Your task to perform on an android device: Search for pizza restaurants on Maps Image 0: 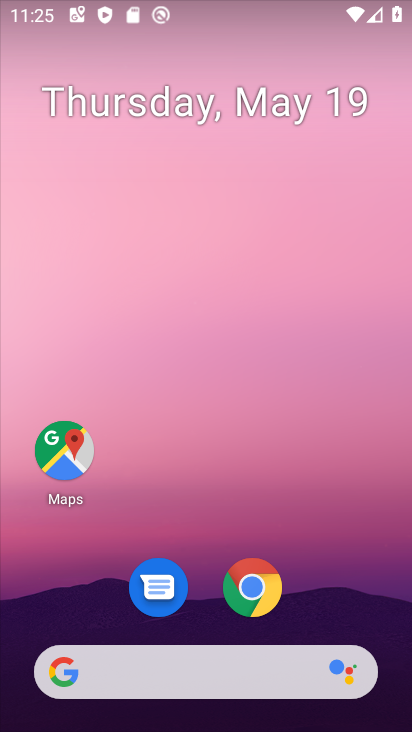
Step 0: click (63, 434)
Your task to perform on an android device: Search for pizza restaurants on Maps Image 1: 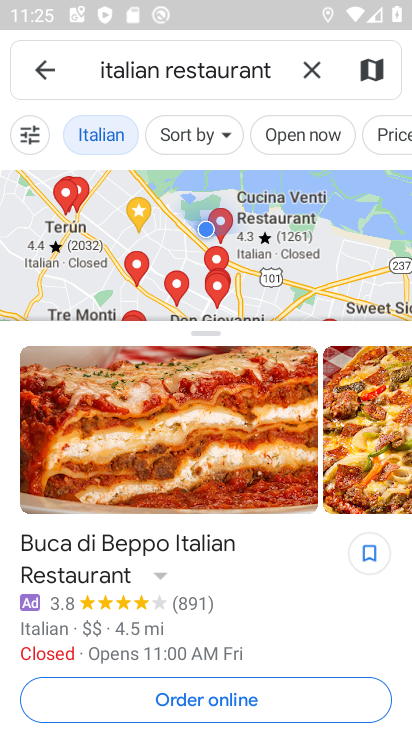
Step 1: click (307, 86)
Your task to perform on an android device: Search for pizza restaurants on Maps Image 2: 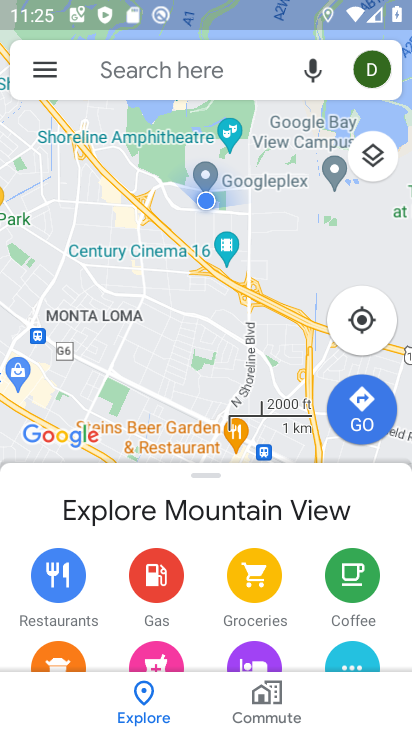
Step 2: click (128, 85)
Your task to perform on an android device: Search for pizza restaurants on Maps Image 3: 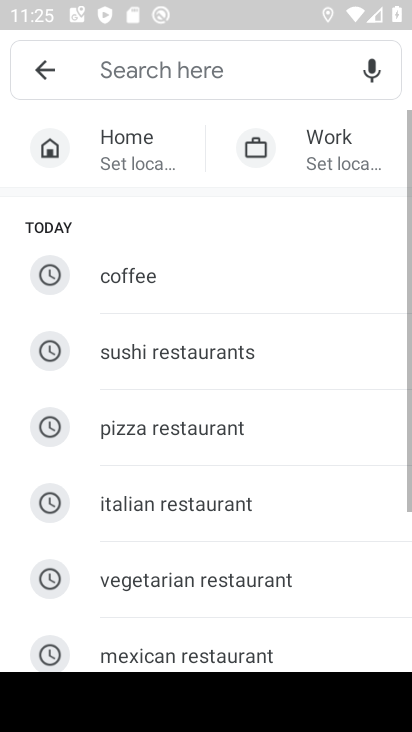
Step 3: click (174, 427)
Your task to perform on an android device: Search for pizza restaurants on Maps Image 4: 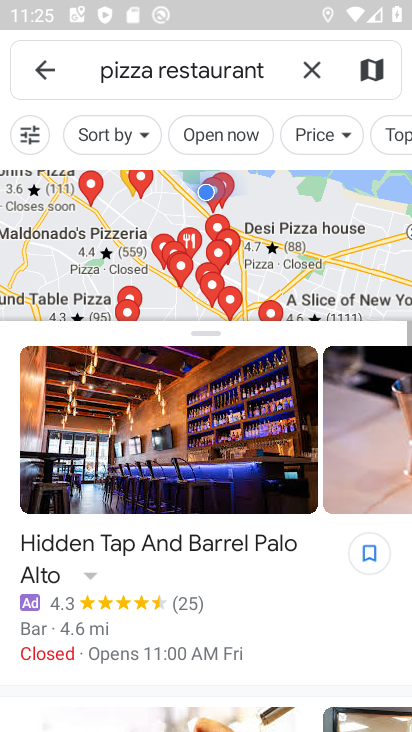
Step 4: task complete